Your task to perform on an android device: Go to CNN.com Image 0: 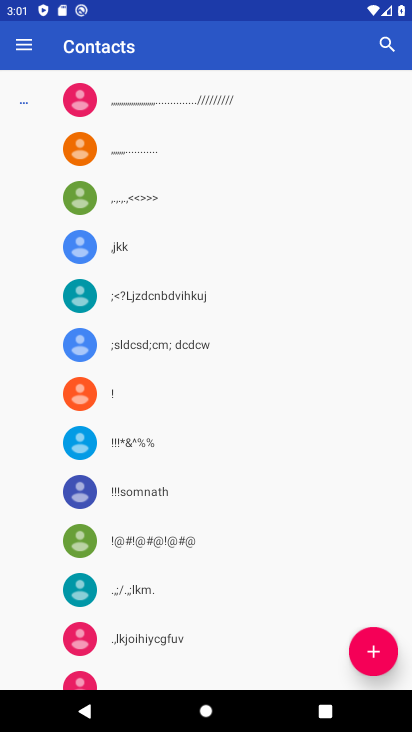
Step 0: press home button
Your task to perform on an android device: Go to CNN.com Image 1: 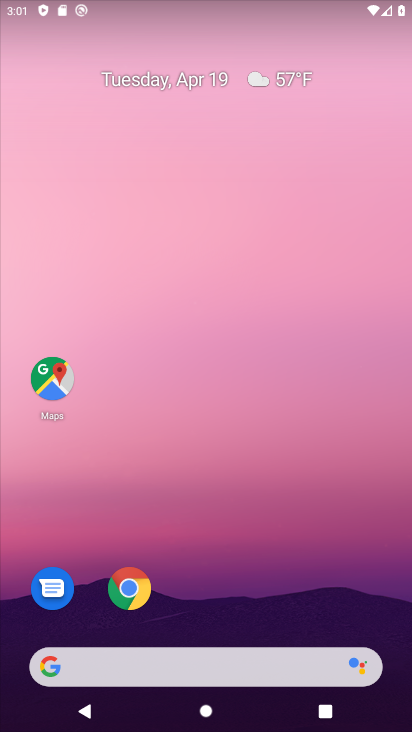
Step 1: click (125, 593)
Your task to perform on an android device: Go to CNN.com Image 2: 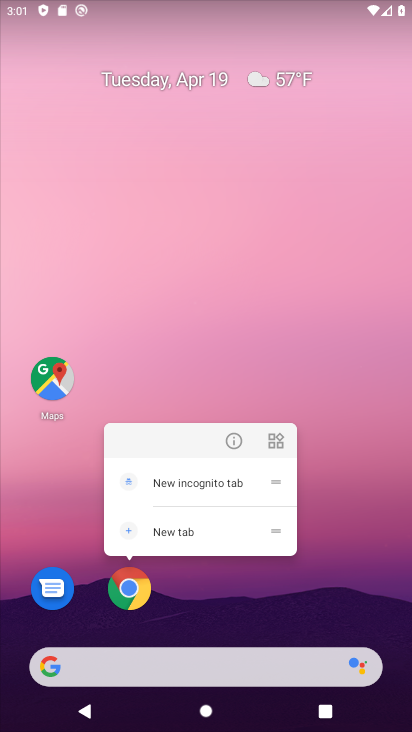
Step 2: click (239, 434)
Your task to perform on an android device: Go to CNN.com Image 3: 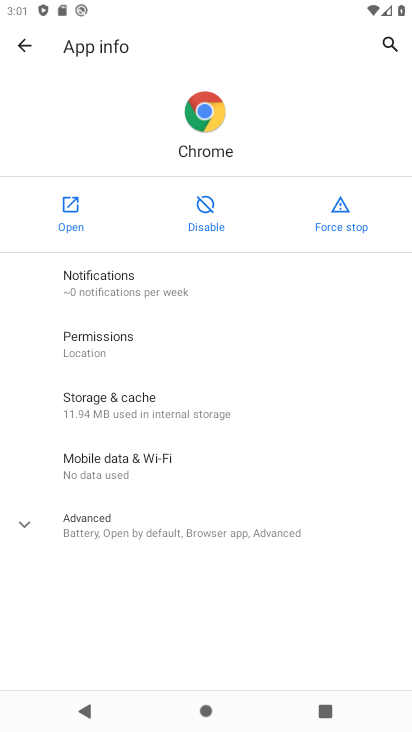
Step 3: click (79, 225)
Your task to perform on an android device: Go to CNN.com Image 4: 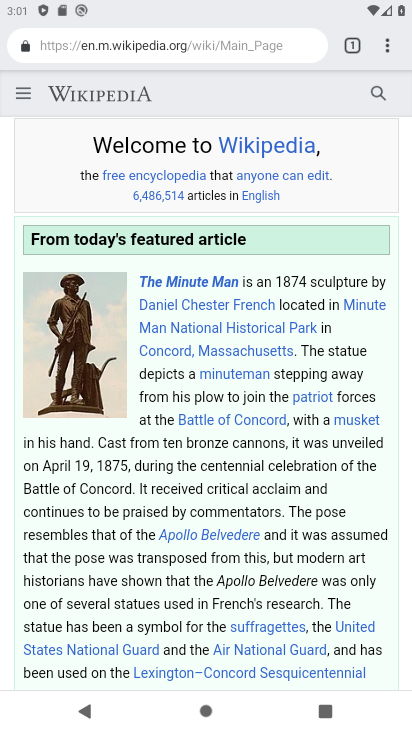
Step 4: click (193, 47)
Your task to perform on an android device: Go to CNN.com Image 5: 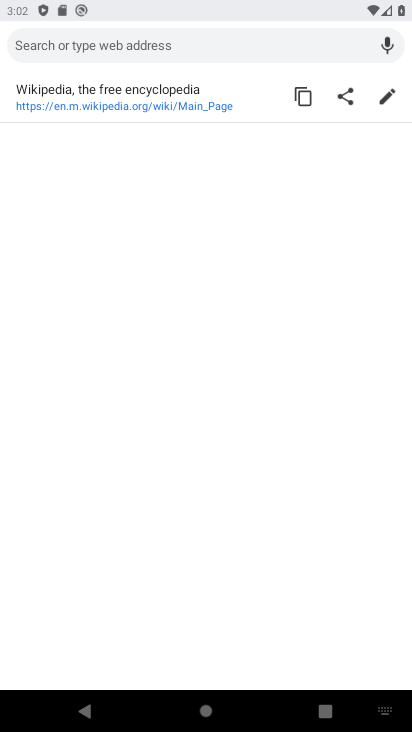
Step 5: type "cnn"
Your task to perform on an android device: Go to CNN.com Image 6: 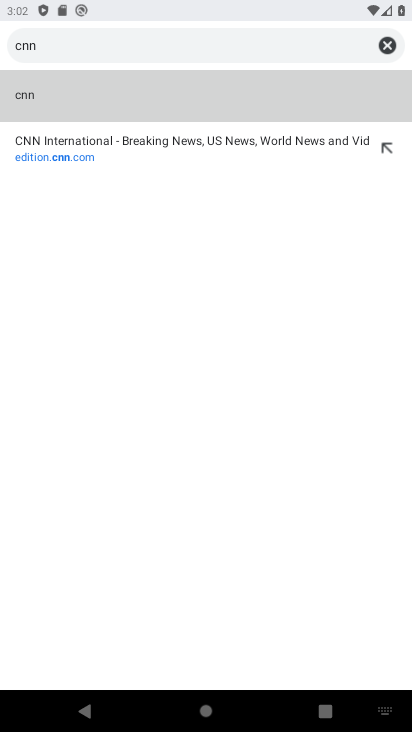
Step 6: click (56, 99)
Your task to perform on an android device: Go to CNN.com Image 7: 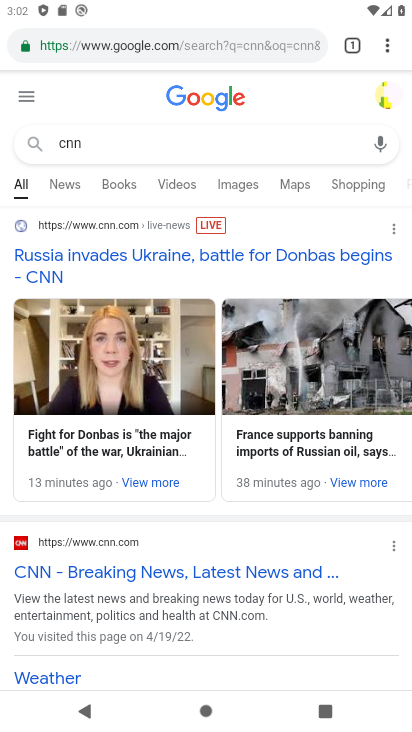
Step 7: click (112, 571)
Your task to perform on an android device: Go to CNN.com Image 8: 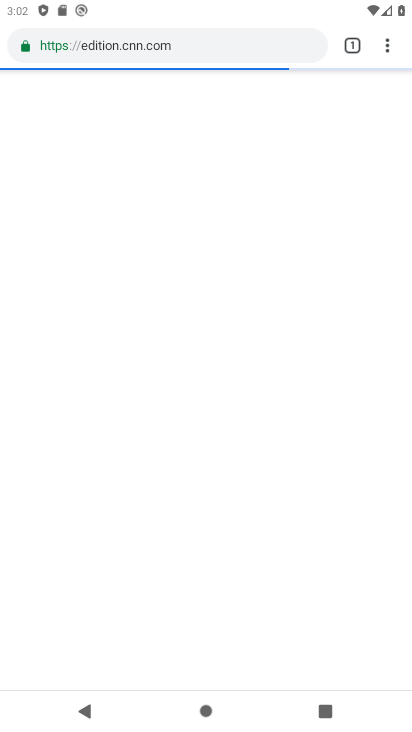
Step 8: task complete